Your task to perform on an android device: Go to internet settings Image 0: 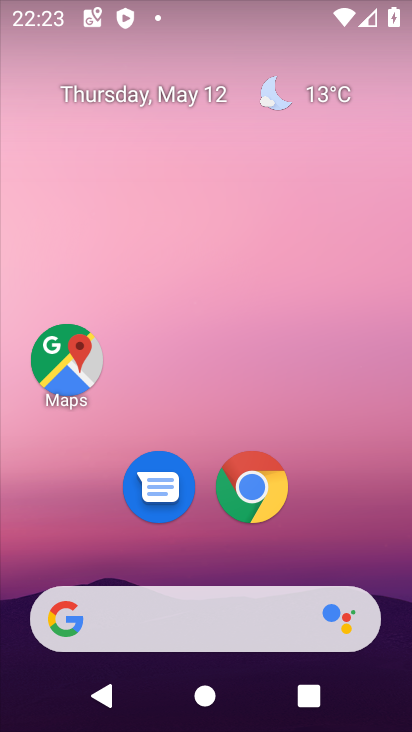
Step 0: drag from (220, 5) to (237, 500)
Your task to perform on an android device: Go to internet settings Image 1: 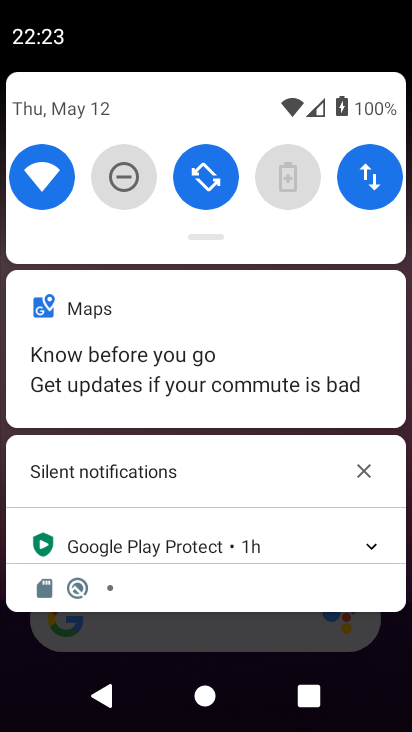
Step 1: click (372, 181)
Your task to perform on an android device: Go to internet settings Image 2: 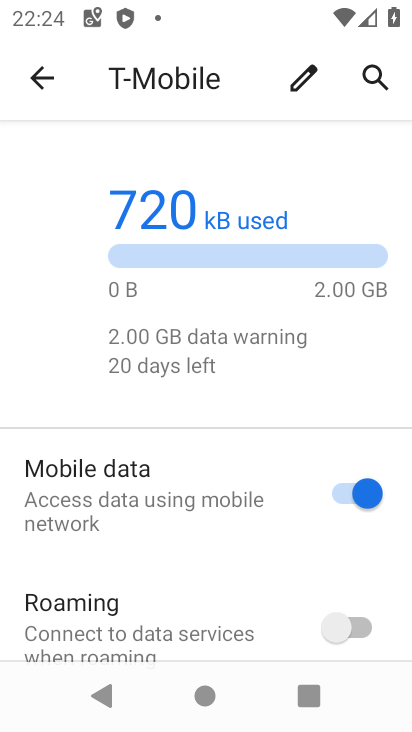
Step 2: task complete